Your task to perform on an android device: turn on data saver in the chrome app Image 0: 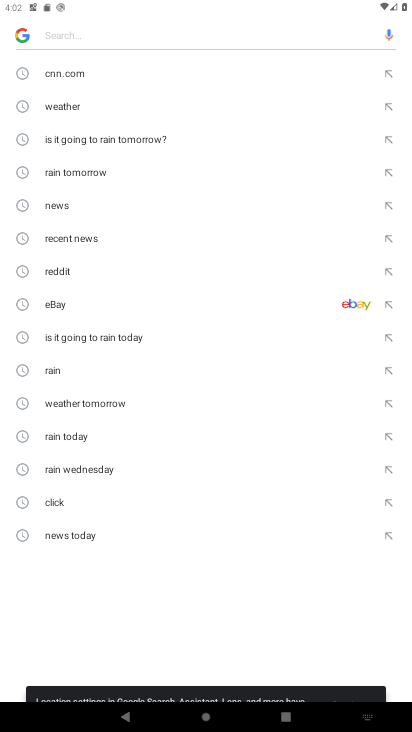
Step 0: press home button
Your task to perform on an android device: turn on data saver in the chrome app Image 1: 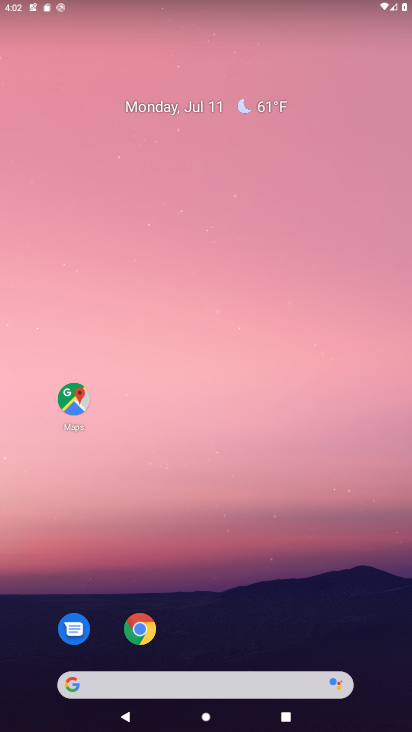
Step 1: click (135, 648)
Your task to perform on an android device: turn on data saver in the chrome app Image 2: 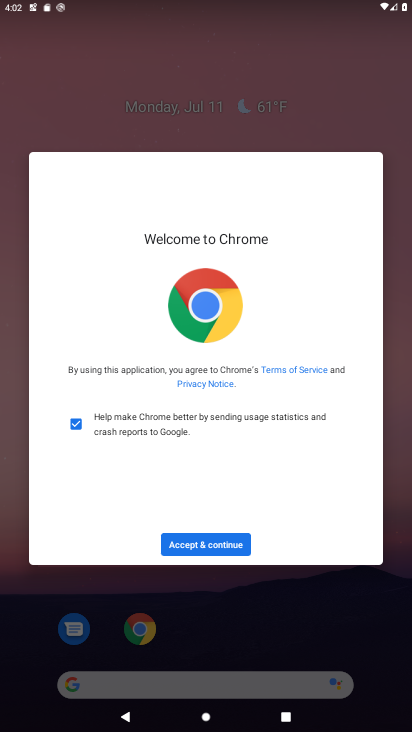
Step 2: click (196, 547)
Your task to perform on an android device: turn on data saver in the chrome app Image 3: 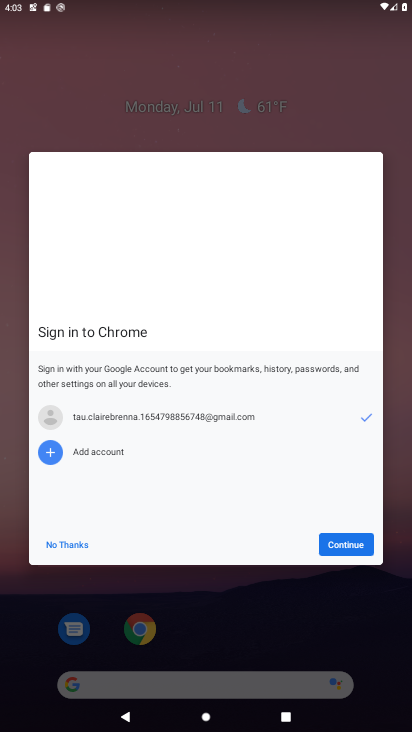
Step 3: click (341, 542)
Your task to perform on an android device: turn on data saver in the chrome app Image 4: 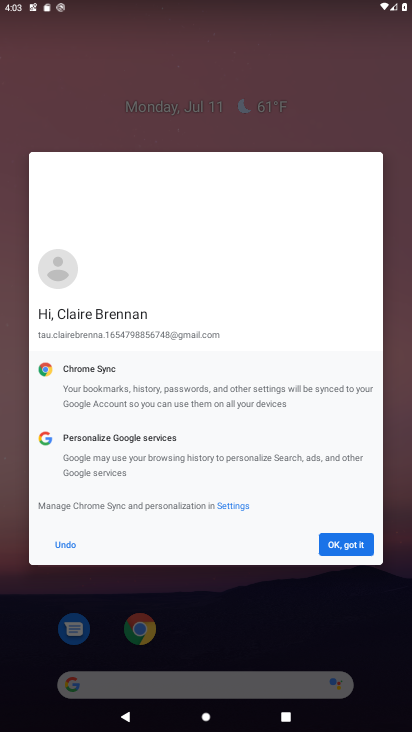
Step 4: click (341, 546)
Your task to perform on an android device: turn on data saver in the chrome app Image 5: 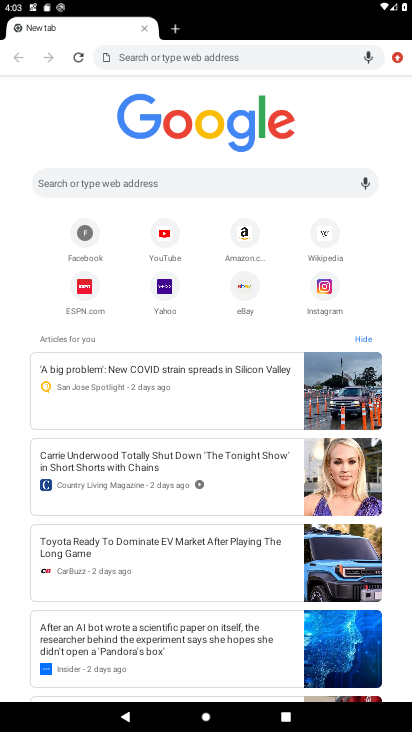
Step 5: click (403, 63)
Your task to perform on an android device: turn on data saver in the chrome app Image 6: 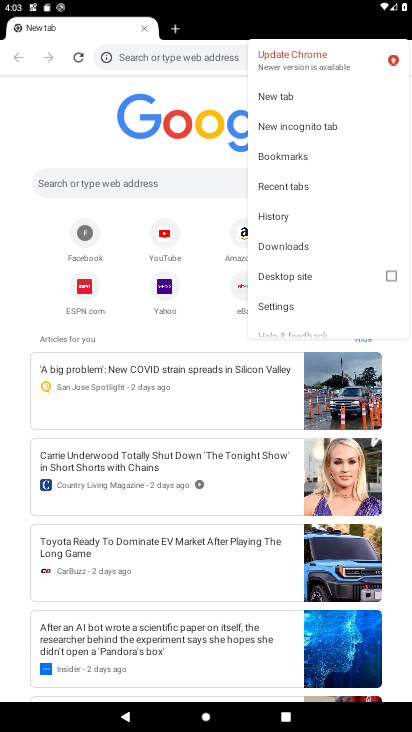
Step 6: click (302, 303)
Your task to perform on an android device: turn on data saver in the chrome app Image 7: 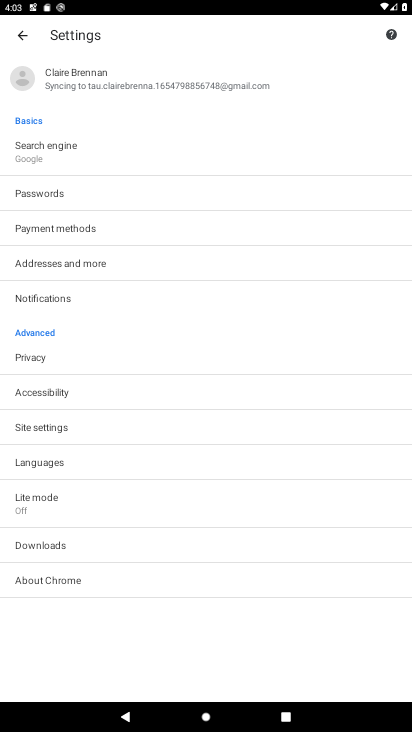
Step 7: click (74, 498)
Your task to perform on an android device: turn on data saver in the chrome app Image 8: 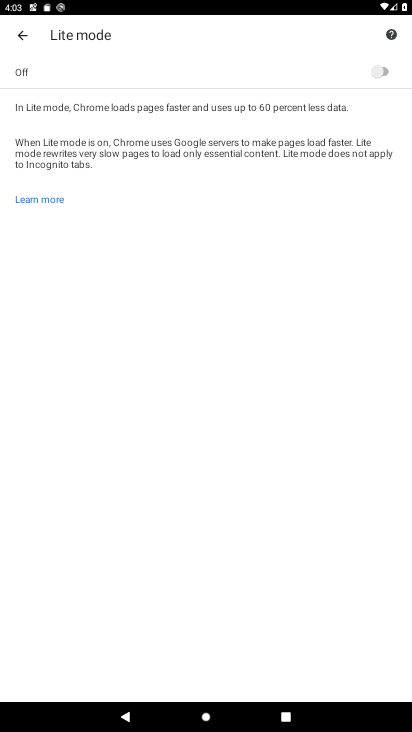
Step 8: click (373, 75)
Your task to perform on an android device: turn on data saver in the chrome app Image 9: 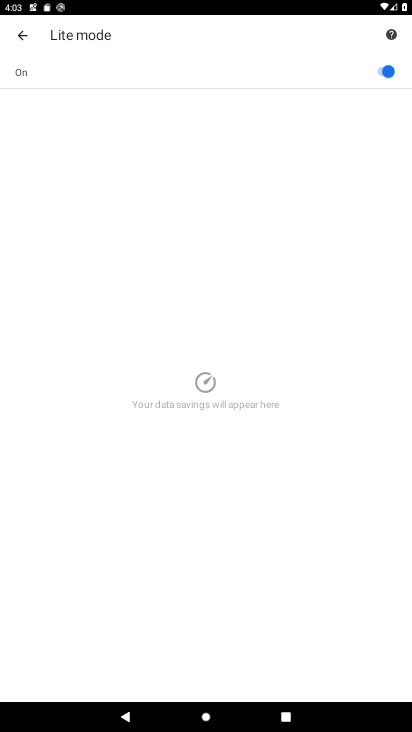
Step 9: task complete